Your task to perform on an android device: Open the Play Movies app and select the watchlist tab. Image 0: 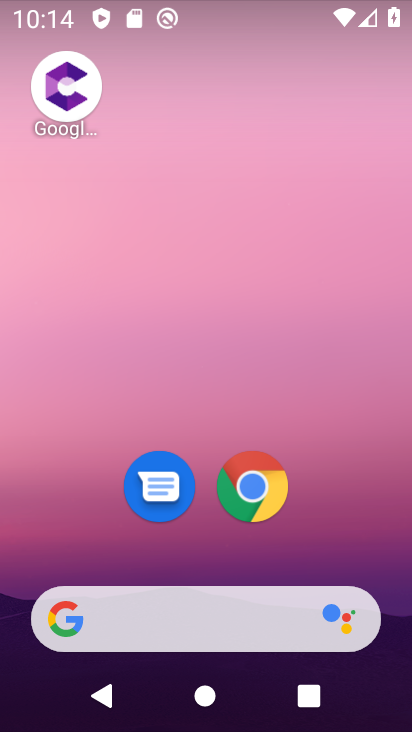
Step 0: drag from (268, 651) to (330, 225)
Your task to perform on an android device: Open the Play Movies app and select the watchlist tab. Image 1: 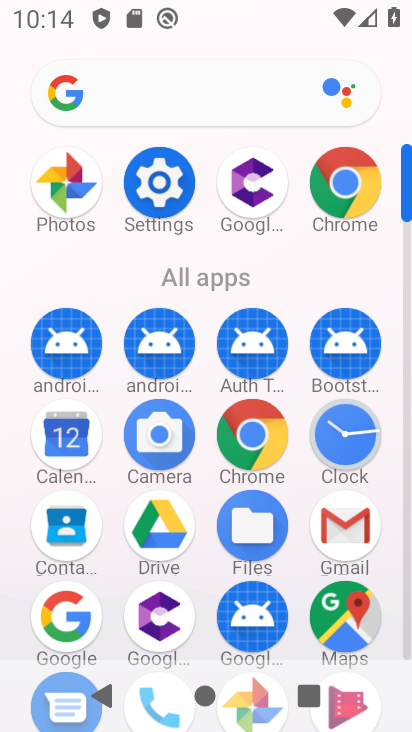
Step 1: drag from (300, 569) to (321, 458)
Your task to perform on an android device: Open the Play Movies app and select the watchlist tab. Image 2: 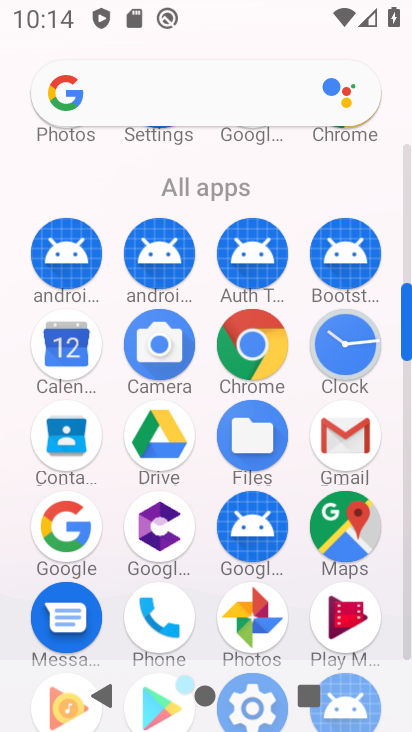
Step 2: click (357, 631)
Your task to perform on an android device: Open the Play Movies app and select the watchlist tab. Image 3: 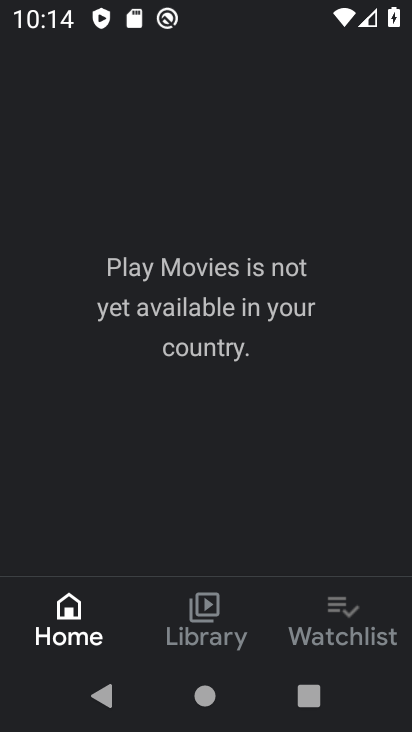
Step 3: click (359, 625)
Your task to perform on an android device: Open the Play Movies app and select the watchlist tab. Image 4: 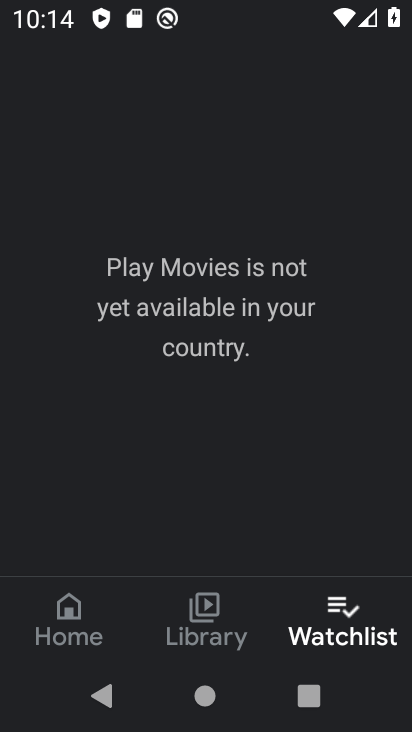
Step 4: task complete